Your task to perform on an android device: Clear all items from cart on newegg.com. Search for macbook pro 13 inch on newegg.com, select the first entry, add it to the cart, then select checkout. Image 0: 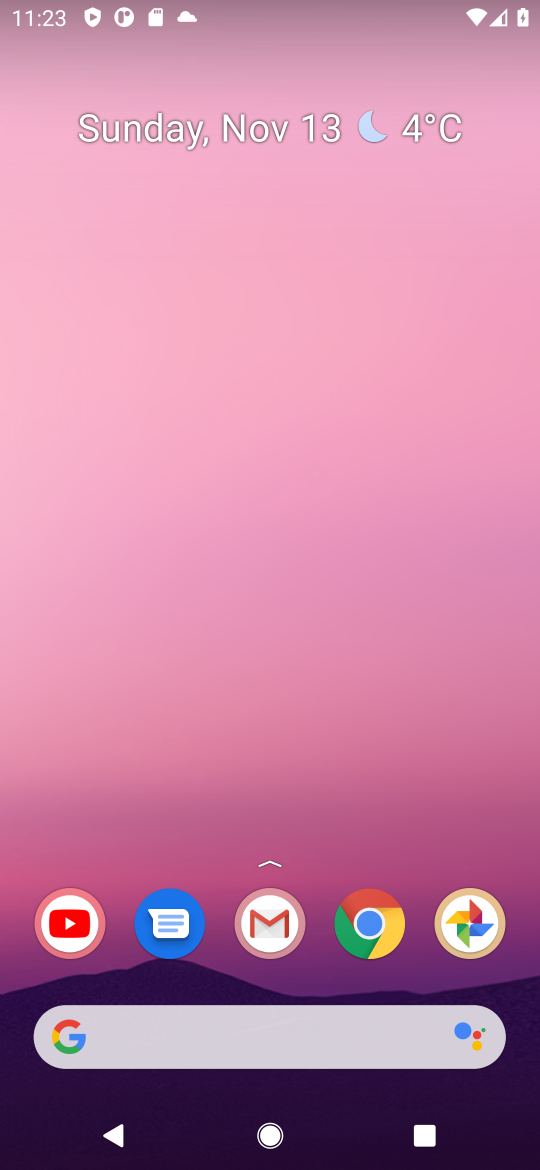
Step 0: click (388, 935)
Your task to perform on an android device: Clear all items from cart on newegg.com. Search for macbook pro 13 inch on newegg.com, select the first entry, add it to the cart, then select checkout. Image 1: 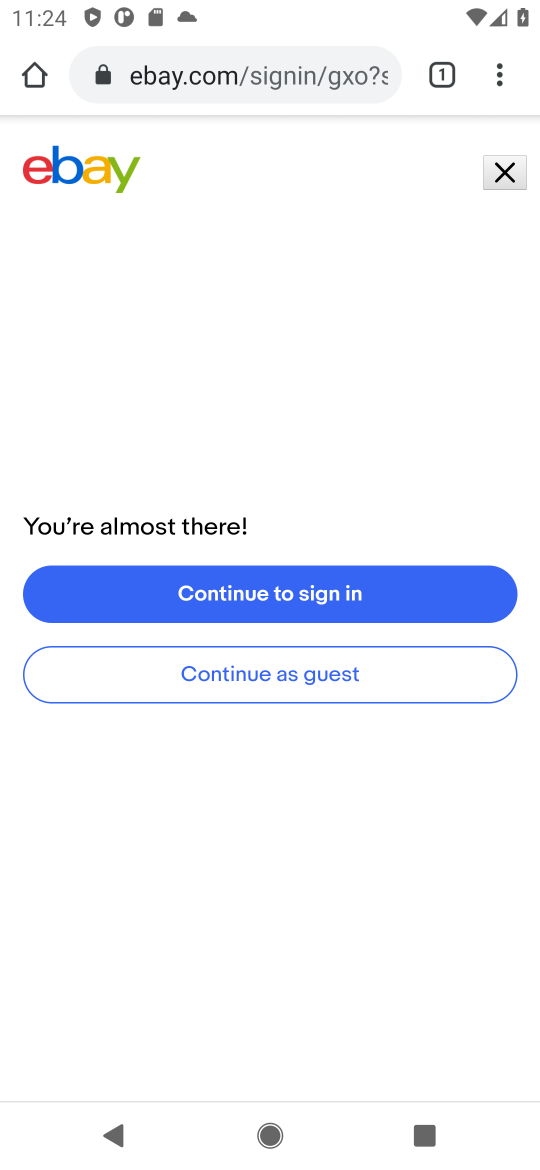
Step 1: click (301, 75)
Your task to perform on an android device: Clear all items from cart on newegg.com. Search for macbook pro 13 inch on newegg.com, select the first entry, add it to the cart, then select checkout. Image 2: 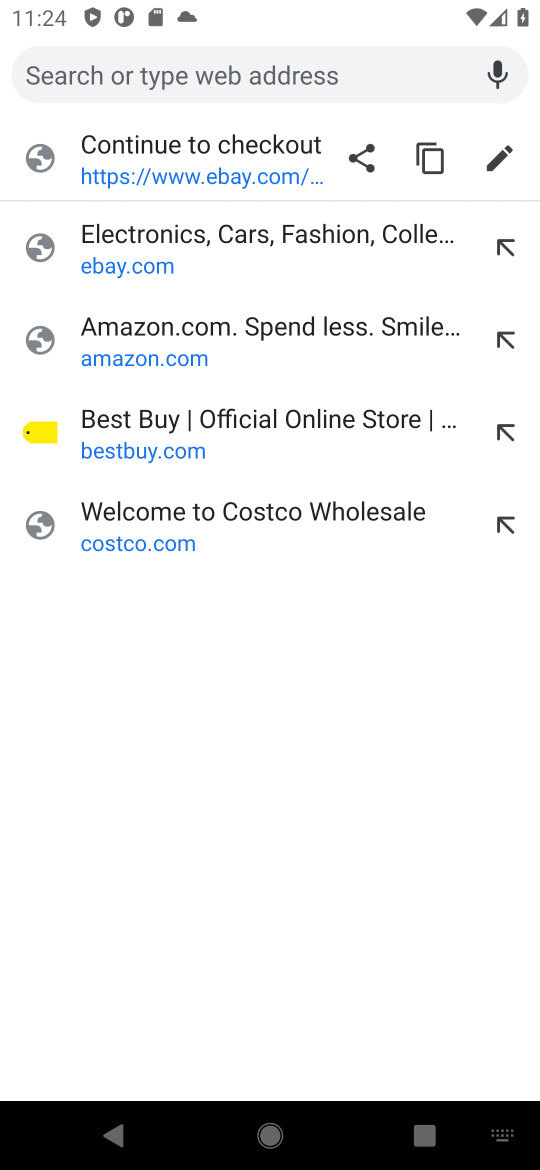
Step 2: type "newegg.com"
Your task to perform on an android device: Clear all items from cart on newegg.com. Search for macbook pro 13 inch on newegg.com, select the first entry, add it to the cart, then select checkout. Image 3: 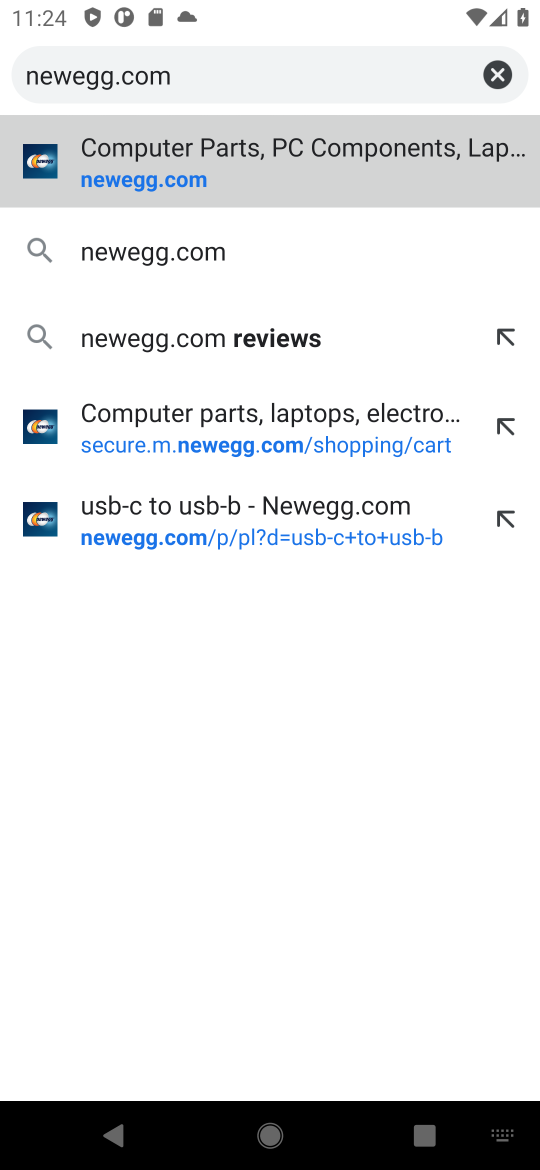
Step 3: press enter
Your task to perform on an android device: Clear all items from cart on newegg.com. Search for macbook pro 13 inch on newegg.com, select the first entry, add it to the cart, then select checkout. Image 4: 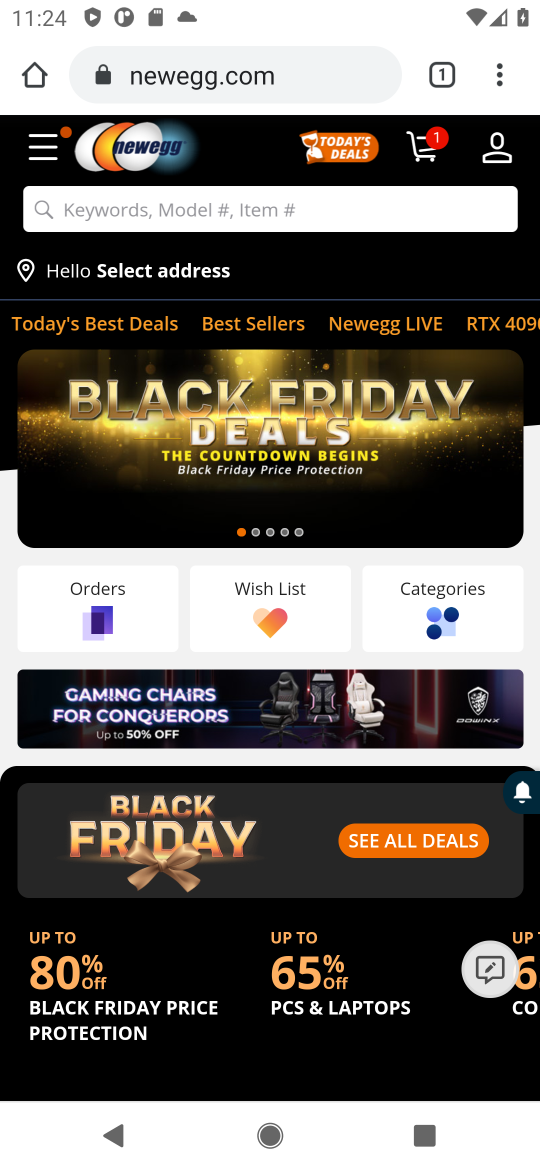
Step 4: click (422, 151)
Your task to perform on an android device: Clear all items from cart on newegg.com. Search for macbook pro 13 inch on newegg.com, select the first entry, add it to the cart, then select checkout. Image 5: 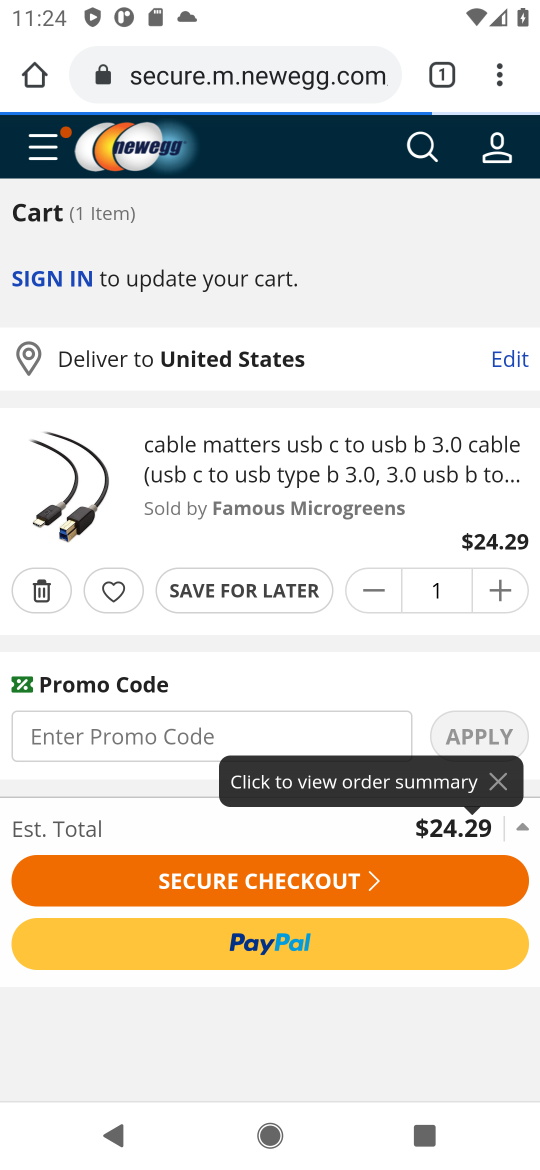
Step 5: click (36, 604)
Your task to perform on an android device: Clear all items from cart on newegg.com. Search for macbook pro 13 inch on newegg.com, select the first entry, add it to the cart, then select checkout. Image 6: 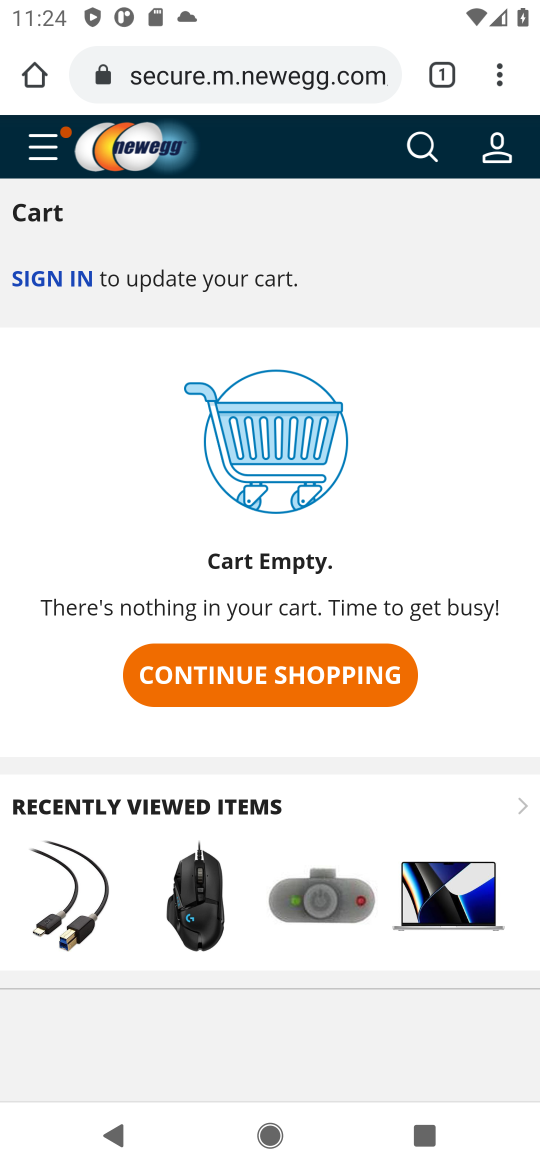
Step 6: click (425, 140)
Your task to perform on an android device: Clear all items from cart on newegg.com. Search for macbook pro 13 inch on newegg.com, select the first entry, add it to the cart, then select checkout. Image 7: 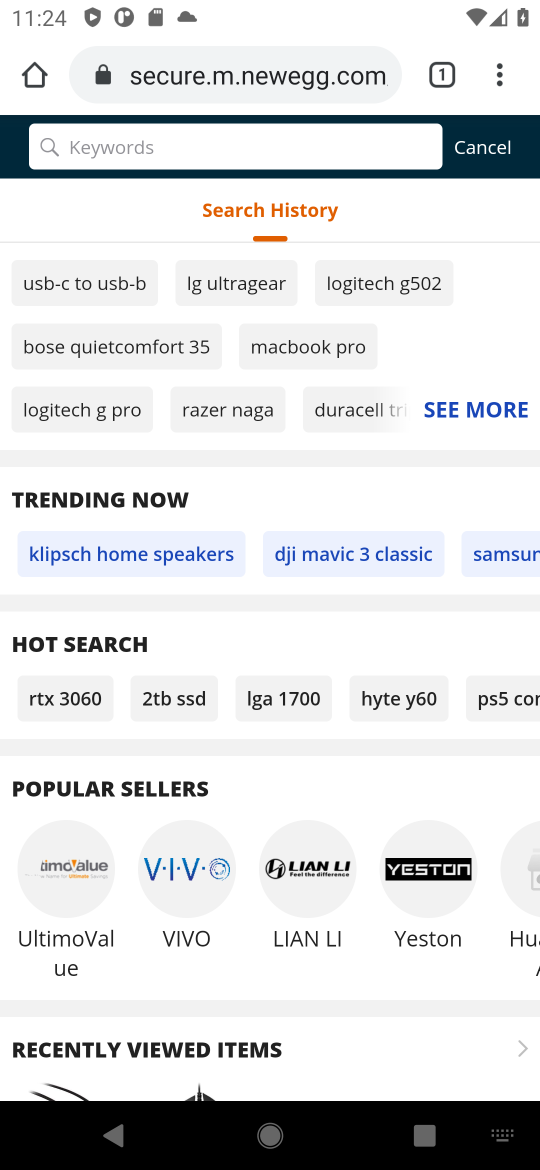
Step 7: type "macbook pro 13 inch "
Your task to perform on an android device: Clear all items from cart on newegg.com. Search for macbook pro 13 inch on newegg.com, select the first entry, add it to the cart, then select checkout. Image 8: 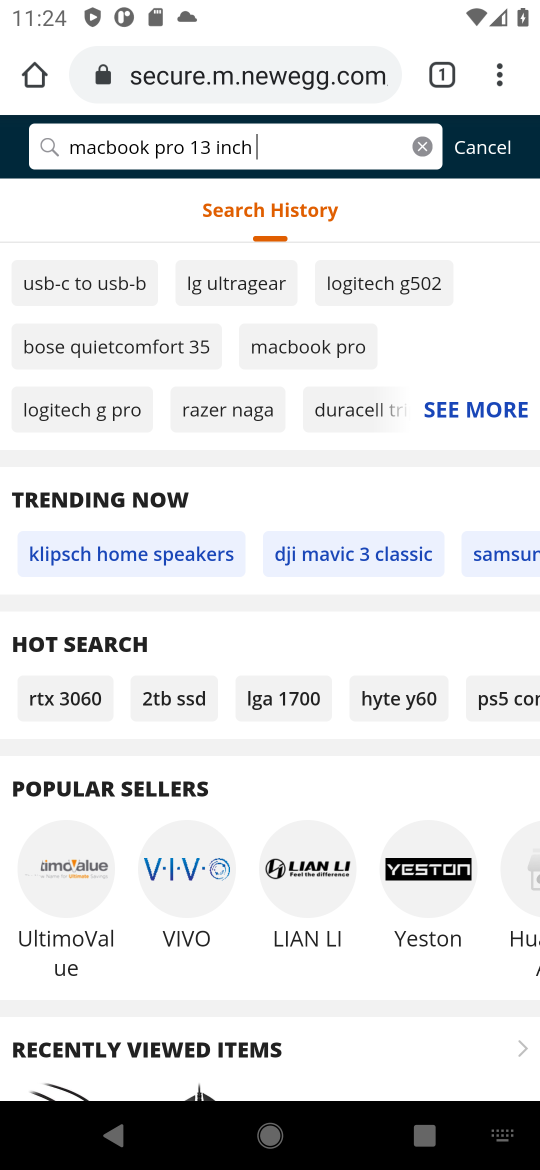
Step 8: press enter
Your task to perform on an android device: Clear all items from cart on newegg.com. Search for macbook pro 13 inch on newegg.com, select the first entry, add it to the cart, then select checkout. Image 9: 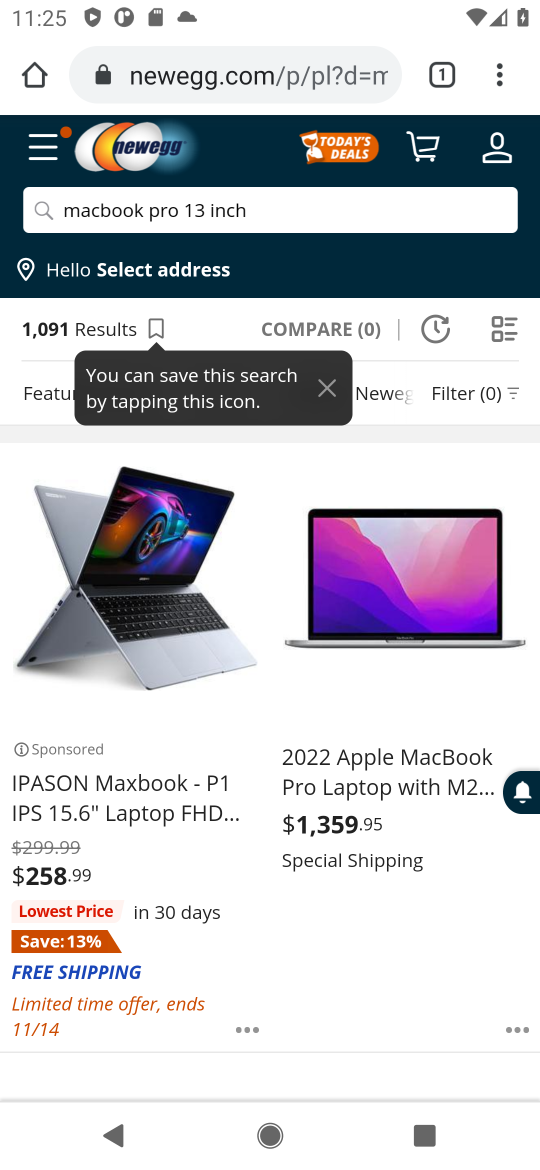
Step 9: drag from (426, 782) to (414, 403)
Your task to perform on an android device: Clear all items from cart on newegg.com. Search for macbook pro 13 inch on newegg.com, select the first entry, add it to the cart, then select checkout. Image 10: 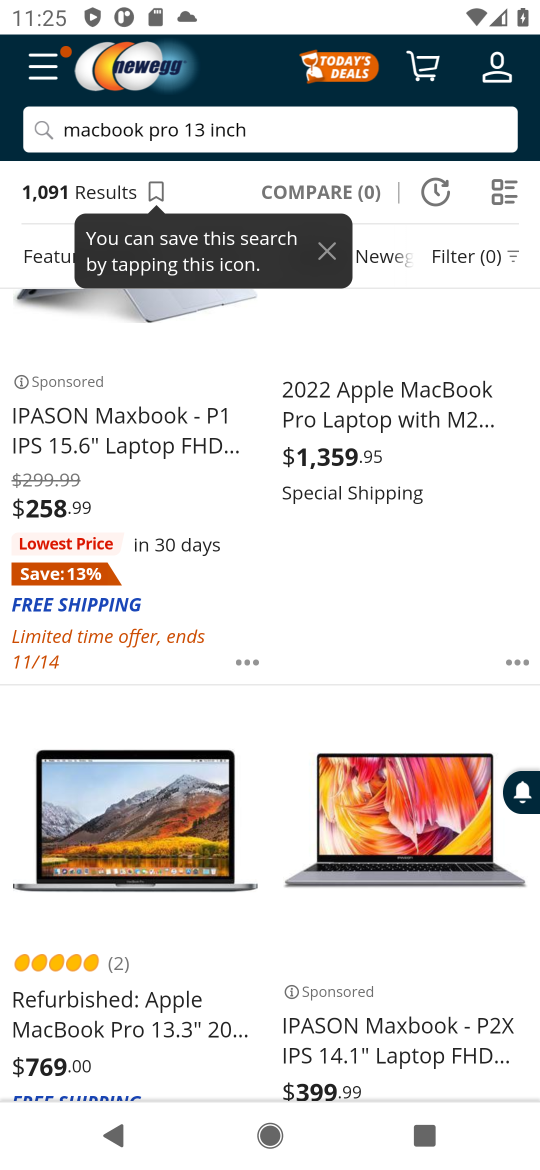
Step 10: drag from (483, 906) to (485, 534)
Your task to perform on an android device: Clear all items from cart on newegg.com. Search for macbook pro 13 inch on newegg.com, select the first entry, add it to the cart, then select checkout. Image 11: 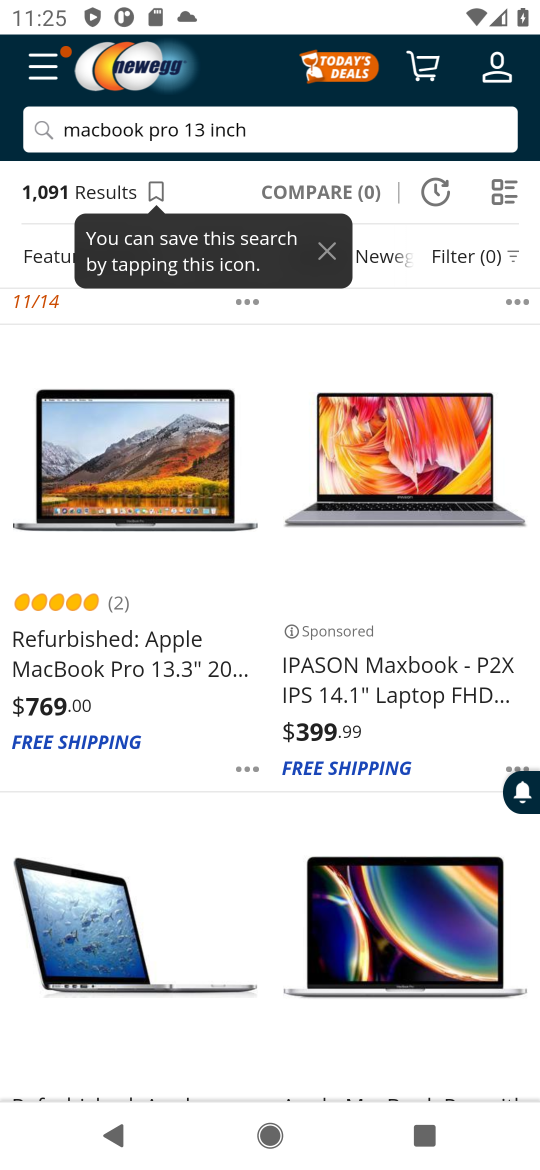
Step 11: click (99, 439)
Your task to perform on an android device: Clear all items from cart on newegg.com. Search for macbook pro 13 inch on newegg.com, select the first entry, add it to the cart, then select checkout. Image 12: 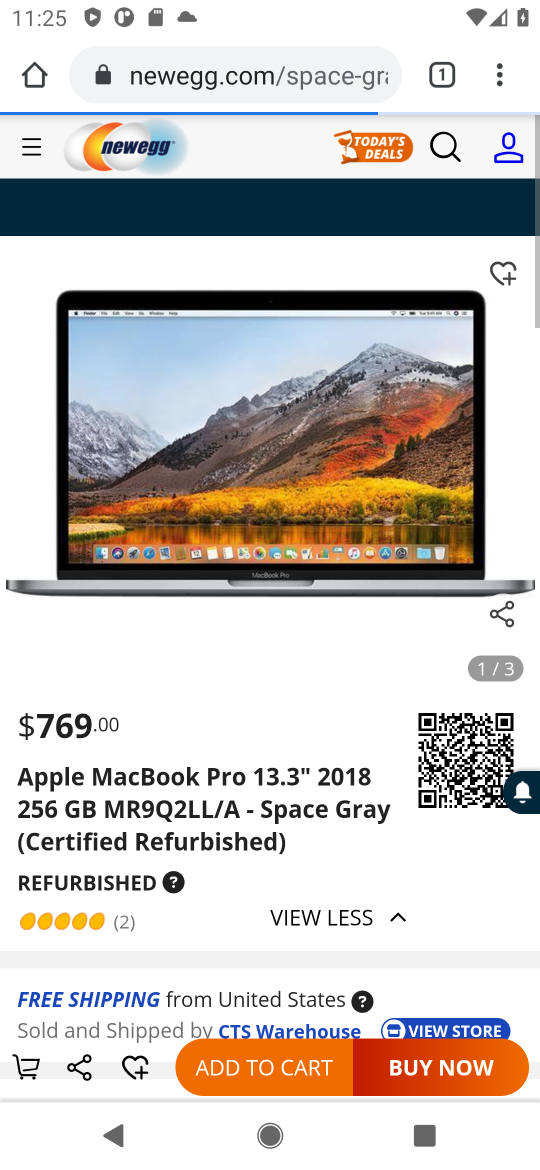
Step 12: drag from (396, 907) to (539, 653)
Your task to perform on an android device: Clear all items from cart on newegg.com. Search for macbook pro 13 inch on newegg.com, select the first entry, add it to the cart, then select checkout. Image 13: 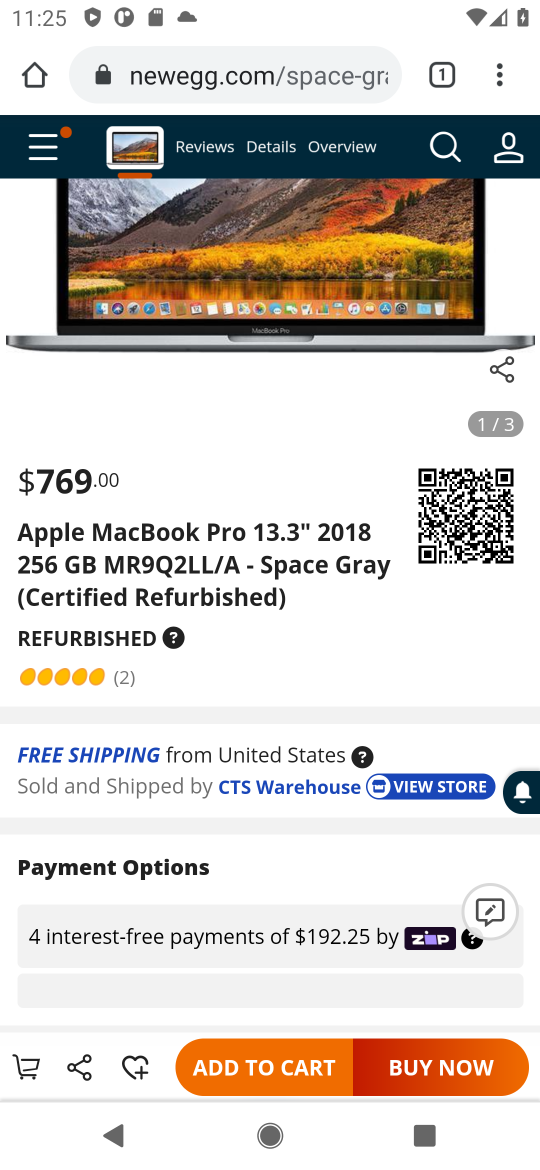
Step 13: press back button
Your task to perform on an android device: Clear all items from cart on newegg.com. Search for macbook pro 13 inch on newegg.com, select the first entry, add it to the cart, then select checkout. Image 14: 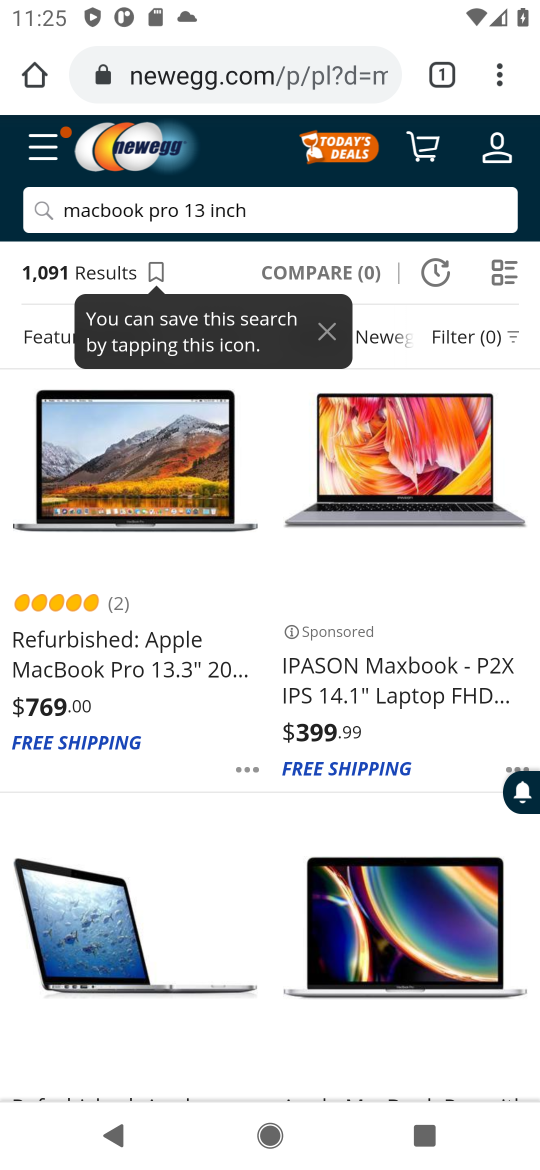
Step 14: drag from (412, 929) to (408, 441)
Your task to perform on an android device: Clear all items from cart on newegg.com. Search for macbook pro 13 inch on newegg.com, select the first entry, add it to the cart, then select checkout. Image 15: 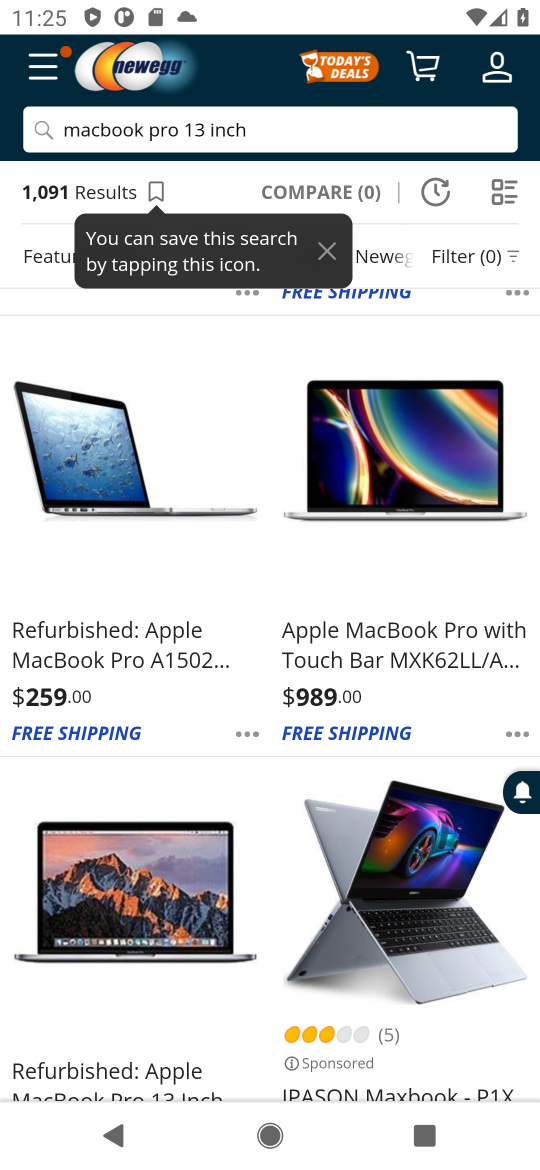
Step 15: click (398, 448)
Your task to perform on an android device: Clear all items from cart on newegg.com. Search for macbook pro 13 inch on newegg.com, select the first entry, add it to the cart, then select checkout. Image 16: 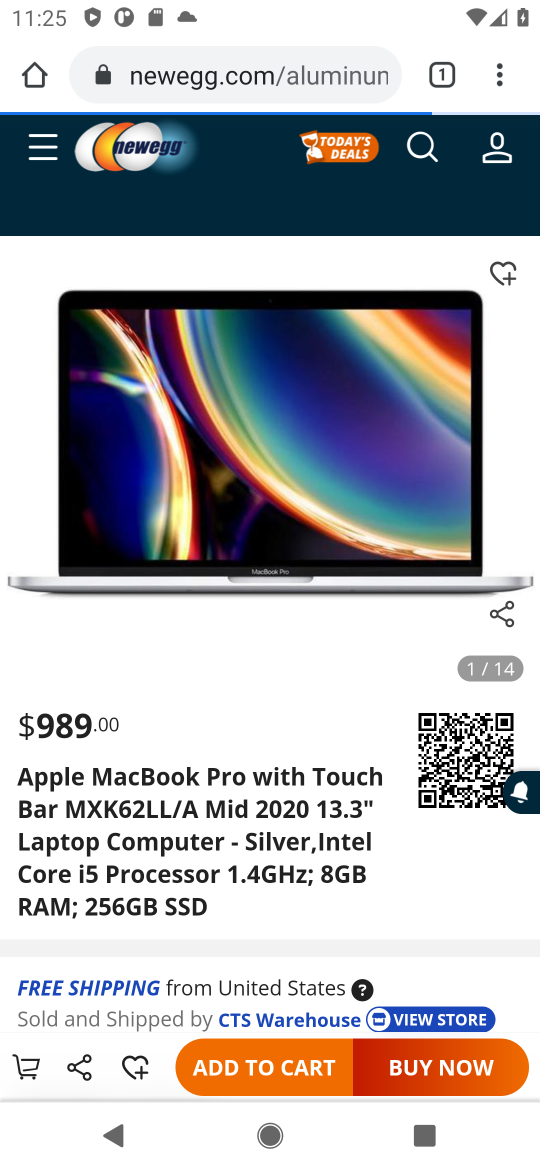
Step 16: task complete